Your task to perform on an android device: When is my next appointment? Image 0: 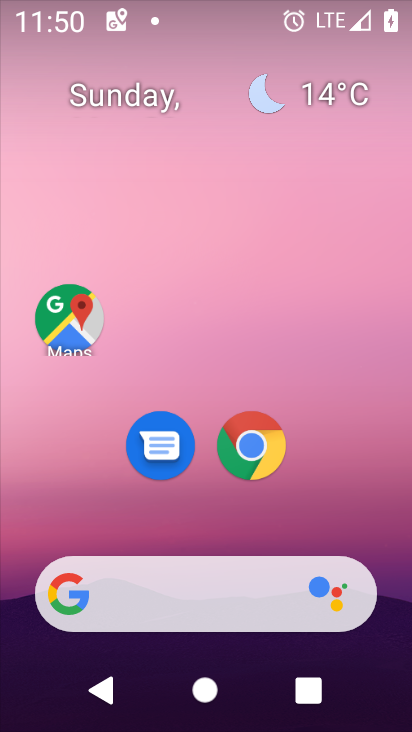
Step 0: drag from (210, 534) to (293, 92)
Your task to perform on an android device: When is my next appointment? Image 1: 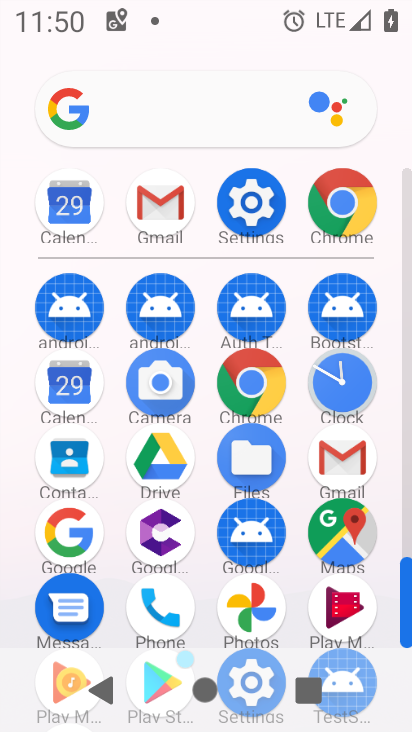
Step 1: click (74, 372)
Your task to perform on an android device: When is my next appointment? Image 2: 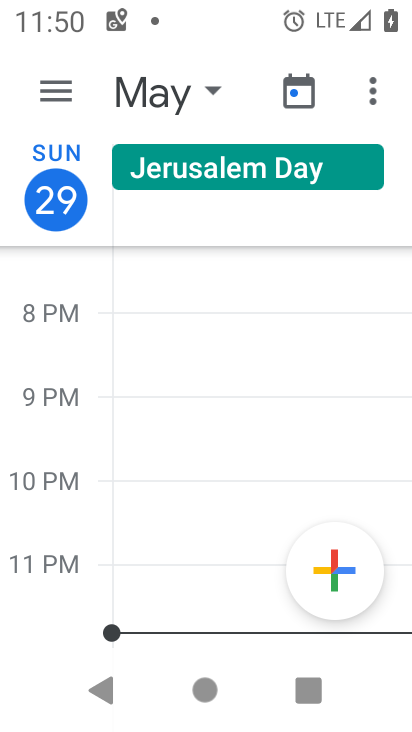
Step 2: click (161, 111)
Your task to perform on an android device: When is my next appointment? Image 3: 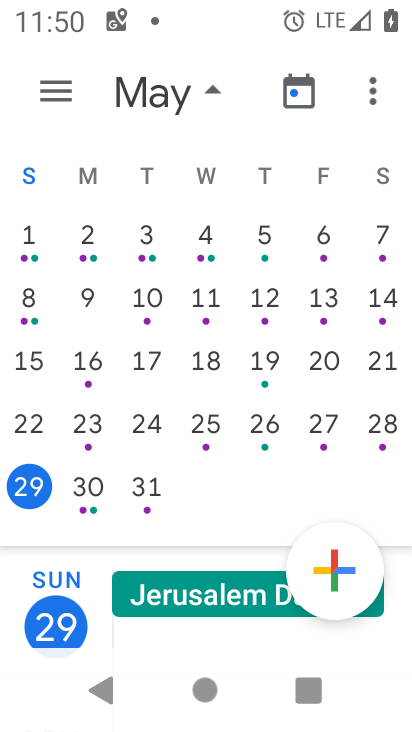
Step 3: click (76, 500)
Your task to perform on an android device: When is my next appointment? Image 4: 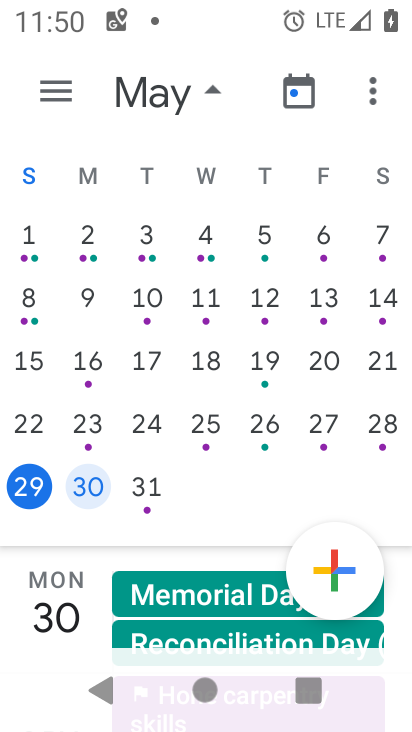
Step 4: task complete